Your task to perform on an android device: turn on improve location accuracy Image 0: 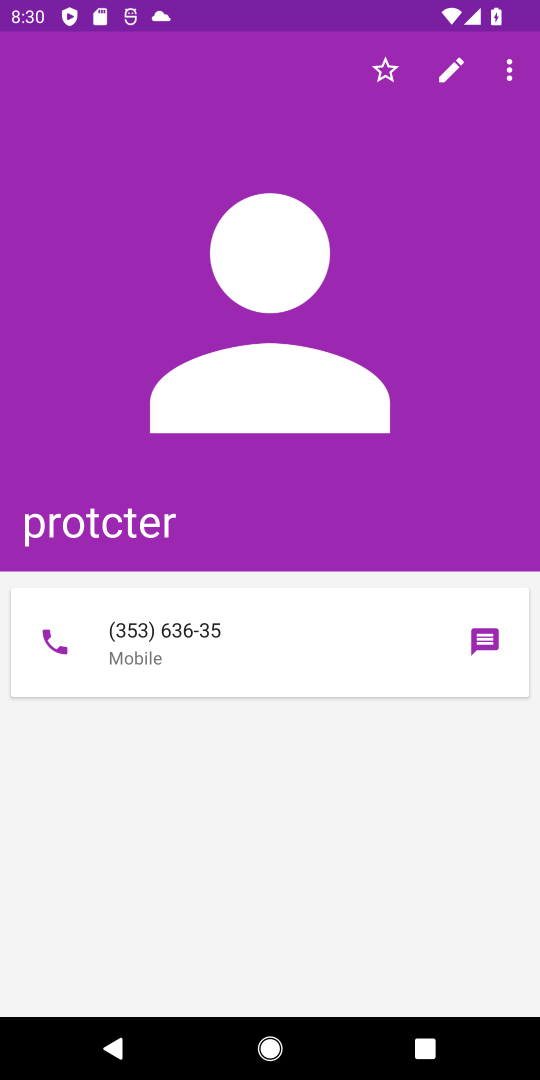
Step 0: press home button
Your task to perform on an android device: turn on improve location accuracy Image 1: 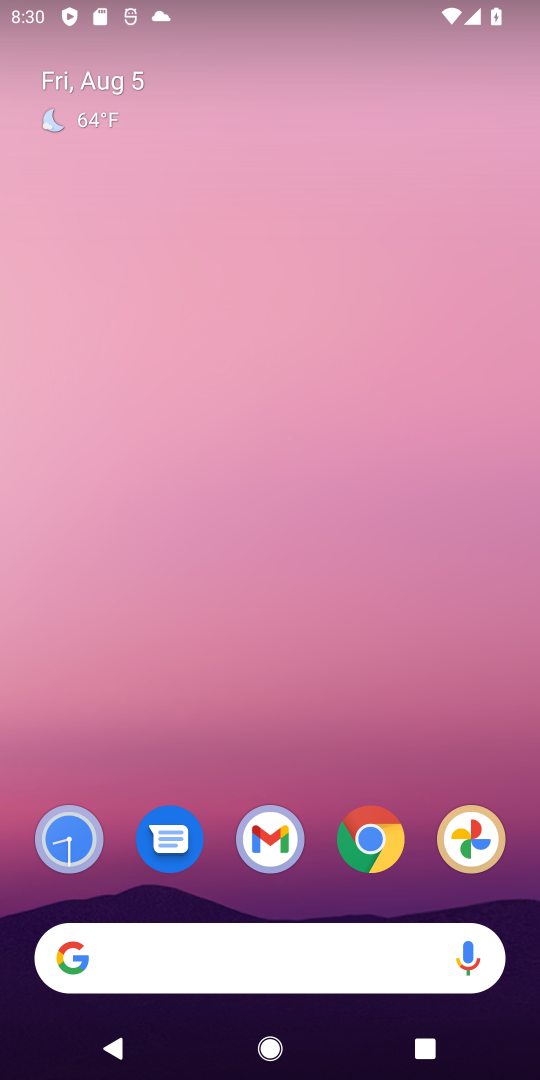
Step 1: drag from (311, 913) to (240, 163)
Your task to perform on an android device: turn on improve location accuracy Image 2: 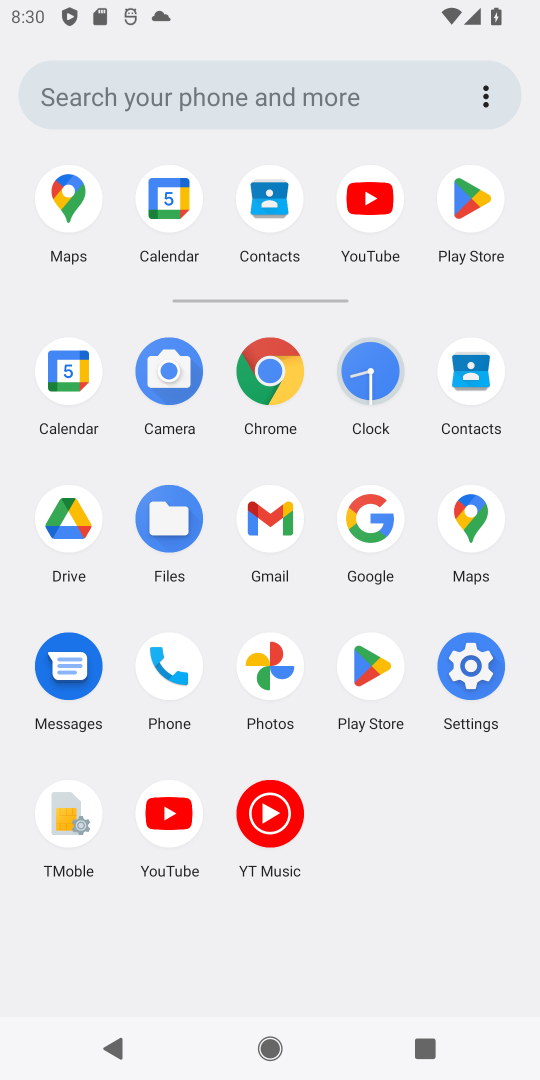
Step 2: click (460, 680)
Your task to perform on an android device: turn on improve location accuracy Image 3: 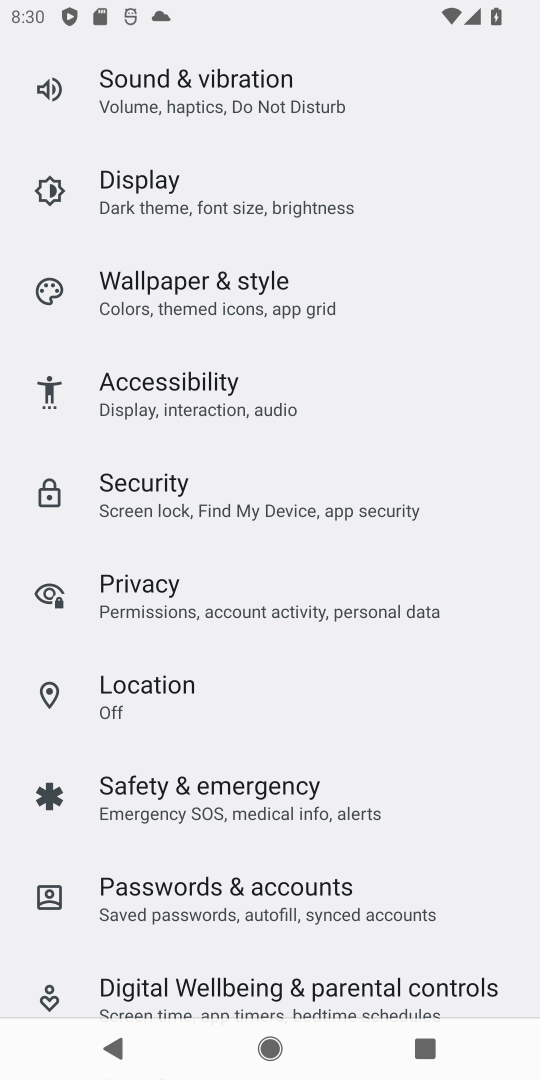
Step 3: click (134, 687)
Your task to perform on an android device: turn on improve location accuracy Image 4: 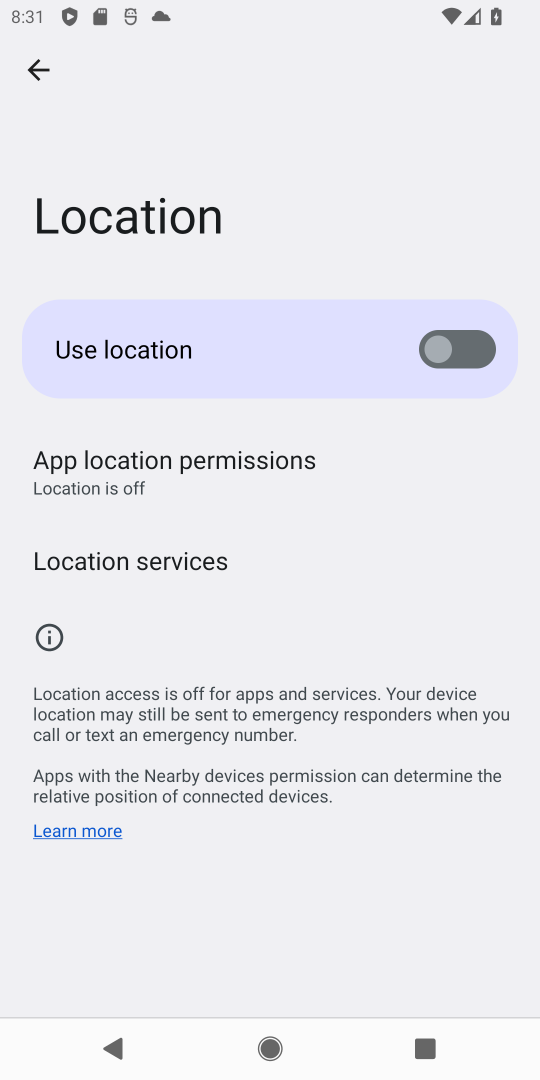
Step 4: click (140, 566)
Your task to perform on an android device: turn on improve location accuracy Image 5: 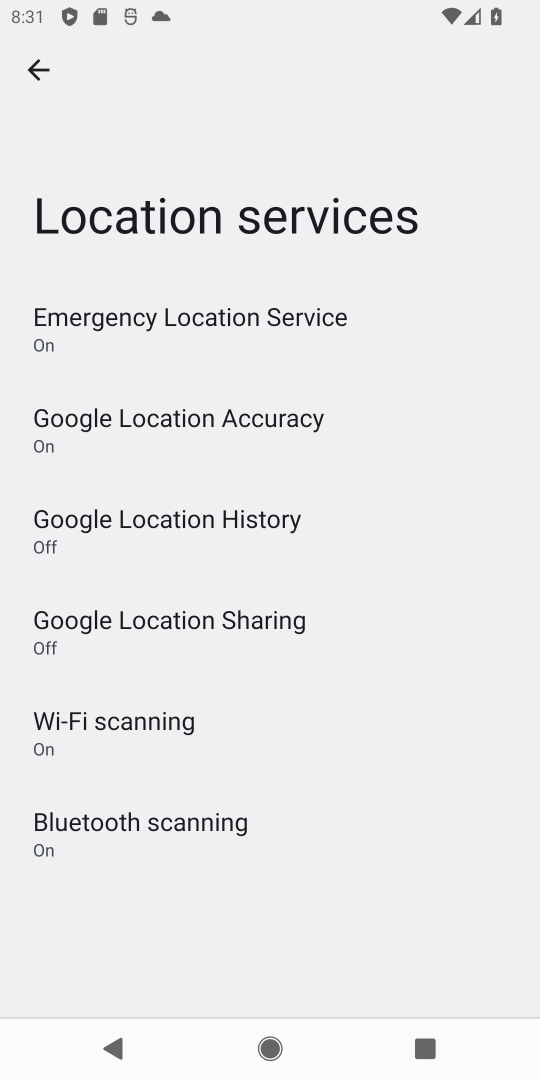
Step 5: click (240, 415)
Your task to perform on an android device: turn on improve location accuracy Image 6: 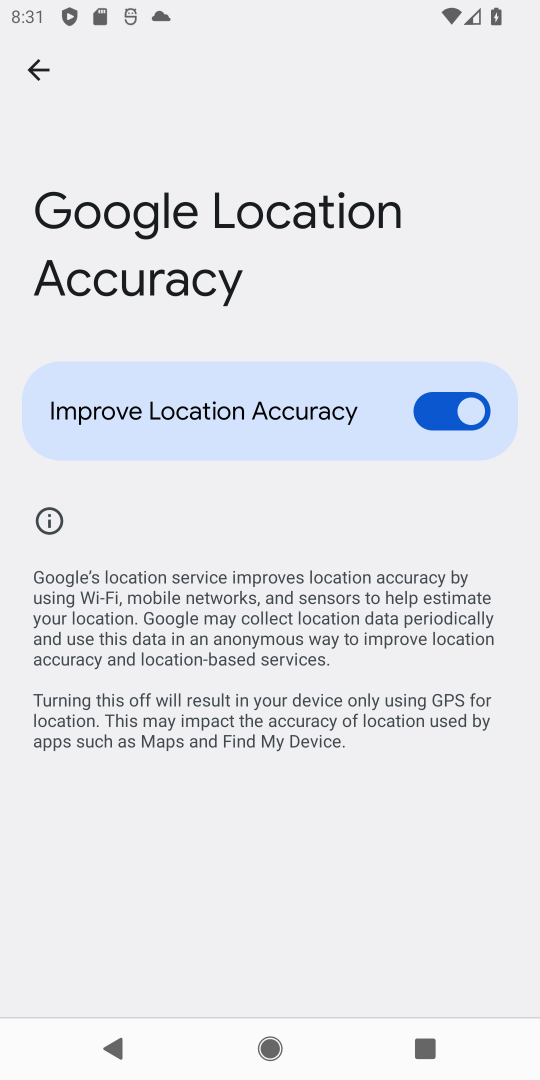
Step 6: task complete